Your task to perform on an android device: Find coffee shops on Maps Image 0: 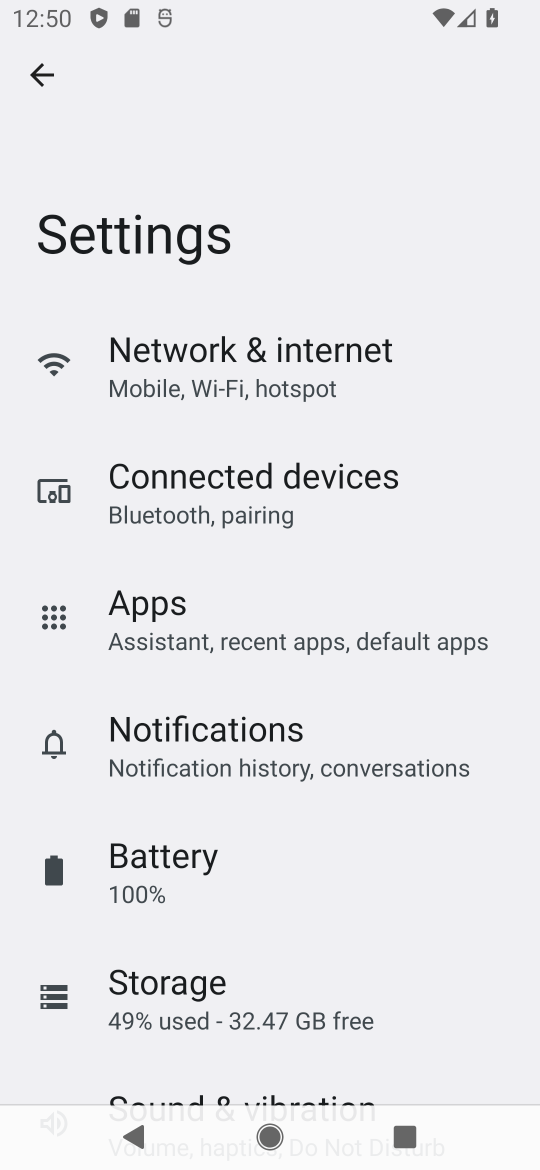
Step 0: press back button
Your task to perform on an android device: Find coffee shops on Maps Image 1: 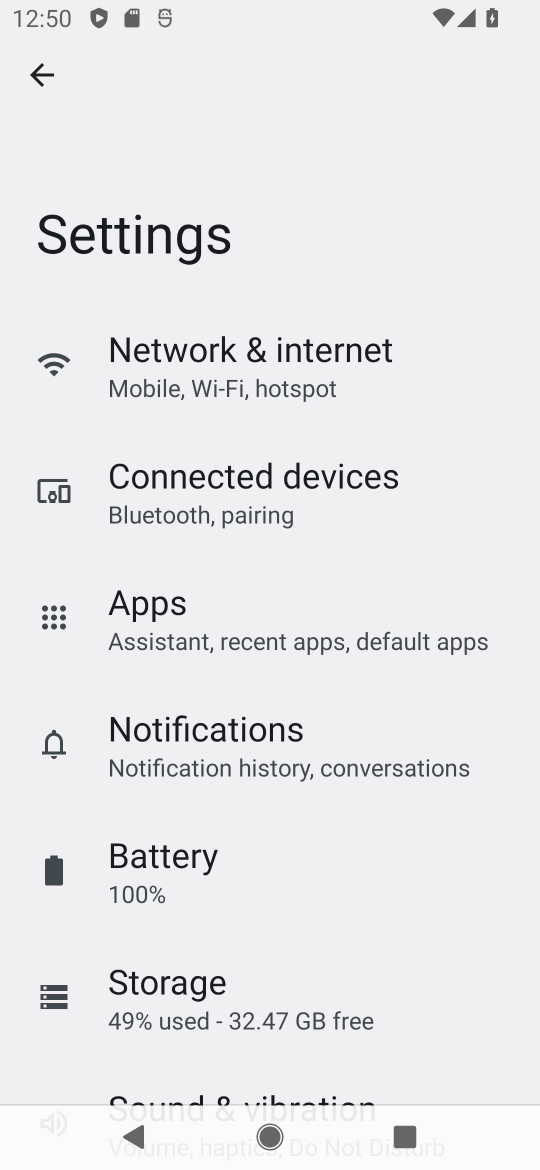
Step 1: press back button
Your task to perform on an android device: Find coffee shops on Maps Image 2: 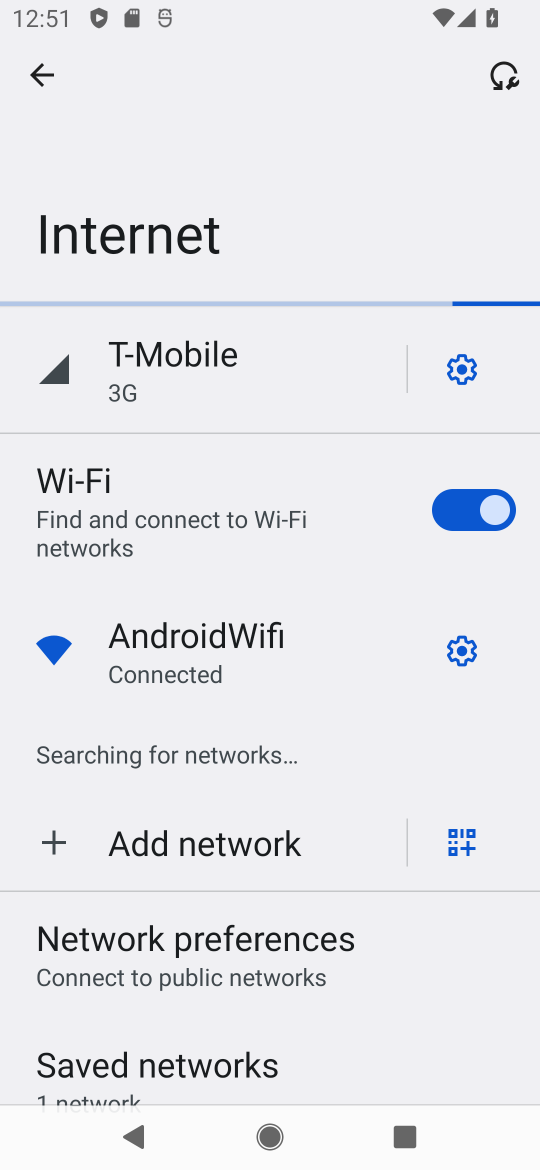
Step 2: press back button
Your task to perform on an android device: Find coffee shops on Maps Image 3: 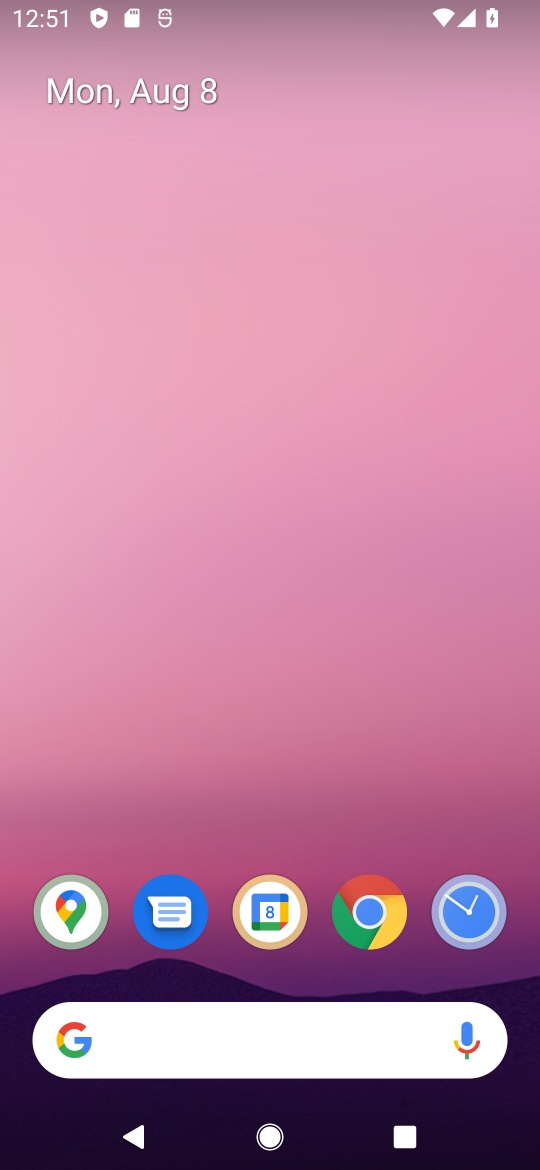
Step 3: click (63, 912)
Your task to perform on an android device: Find coffee shops on Maps Image 4: 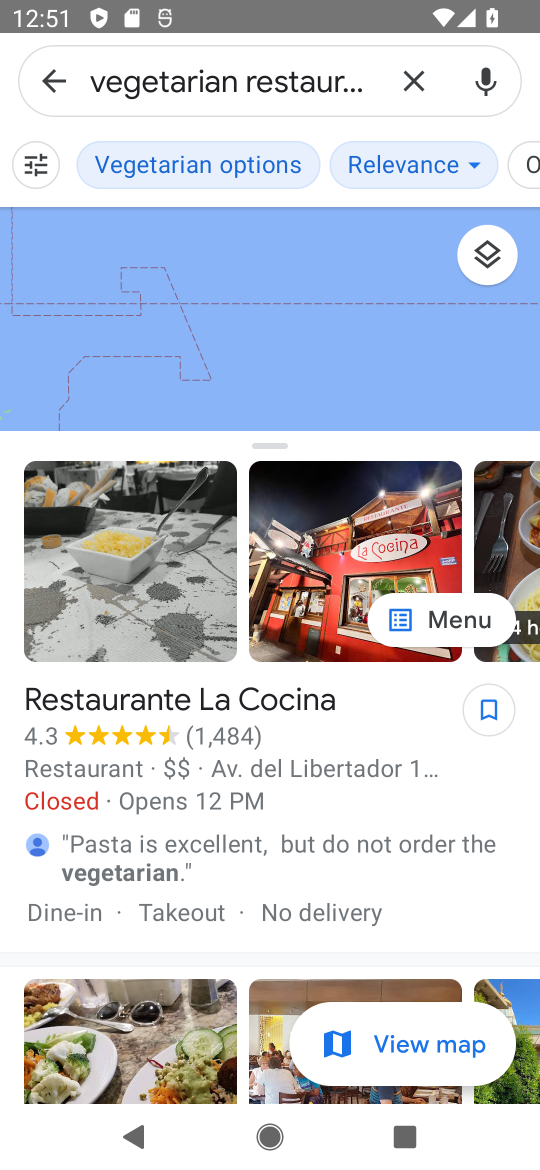
Step 4: click (417, 74)
Your task to perform on an android device: Find coffee shops on Maps Image 5: 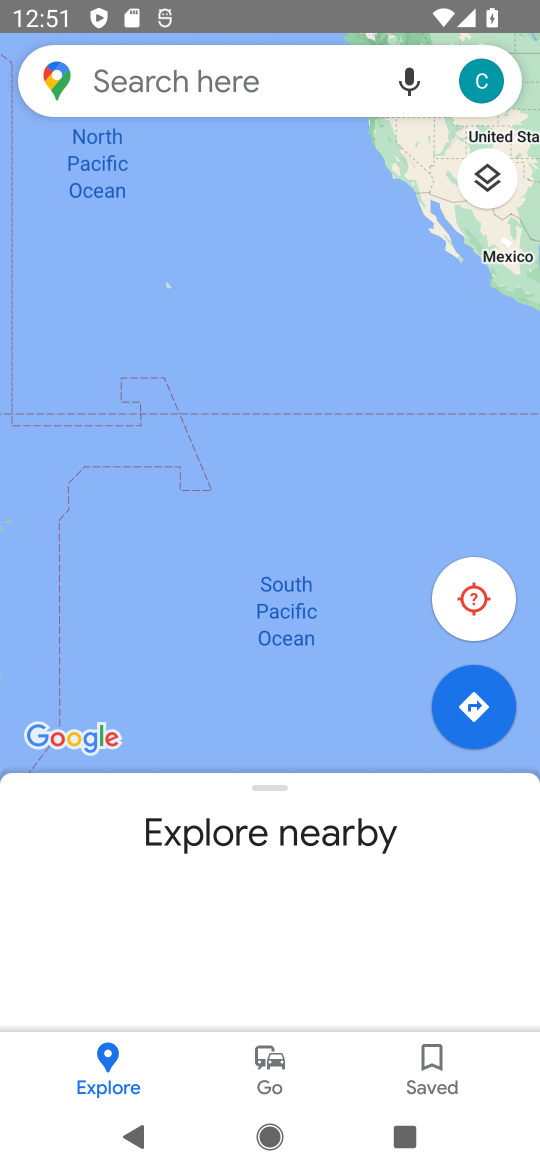
Step 5: click (234, 92)
Your task to perform on an android device: Find coffee shops on Maps Image 6: 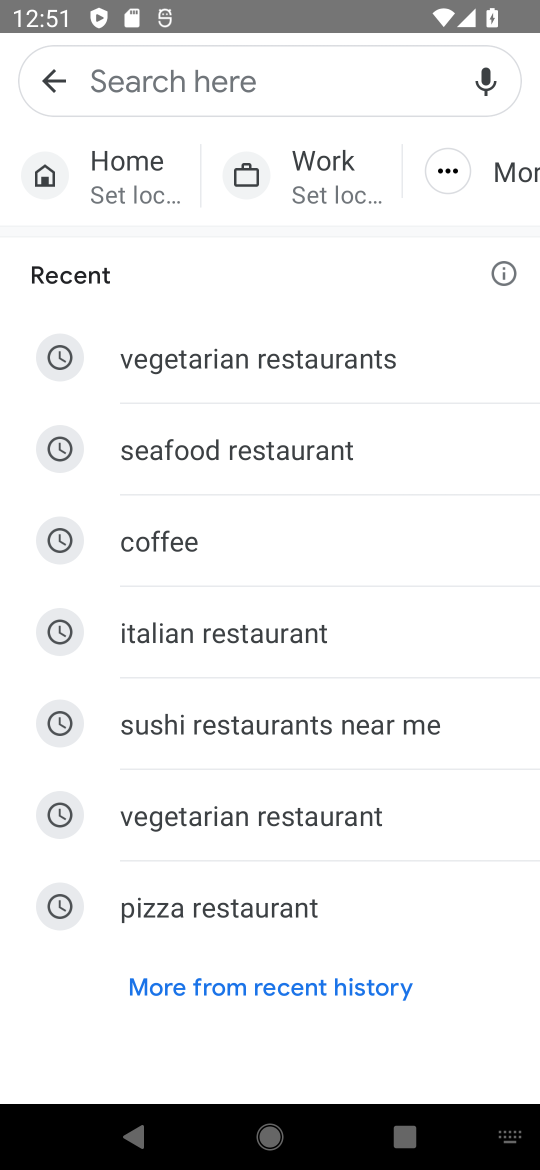
Step 6: click (181, 547)
Your task to perform on an android device: Find coffee shops on Maps Image 7: 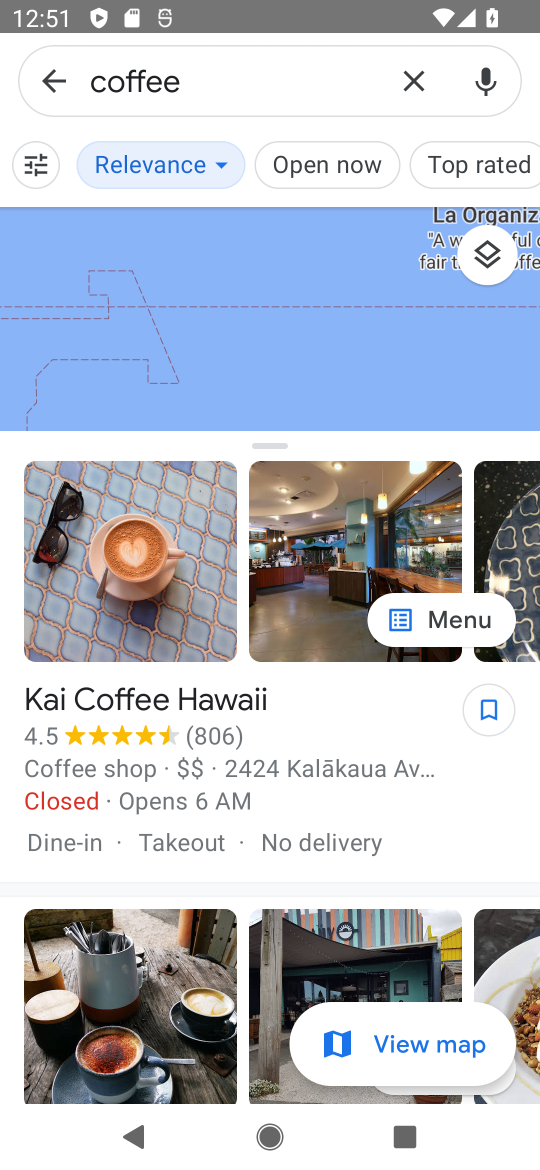
Step 7: task complete